Your task to perform on an android device: Search for hotels in Buenos aires Image 0: 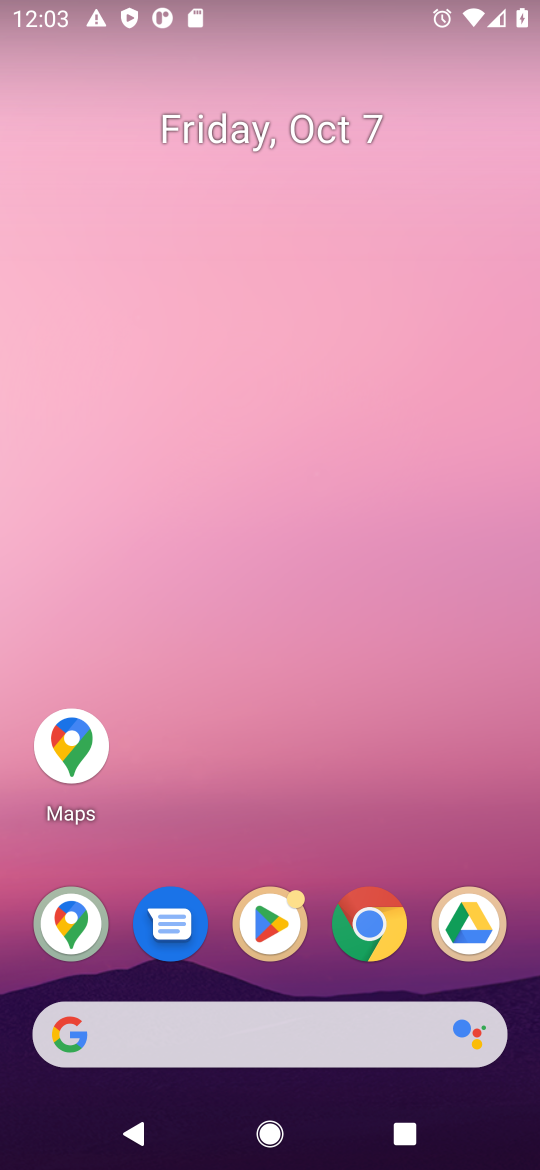
Step 0: click (69, 752)
Your task to perform on an android device: Search for hotels in Buenos aires Image 1: 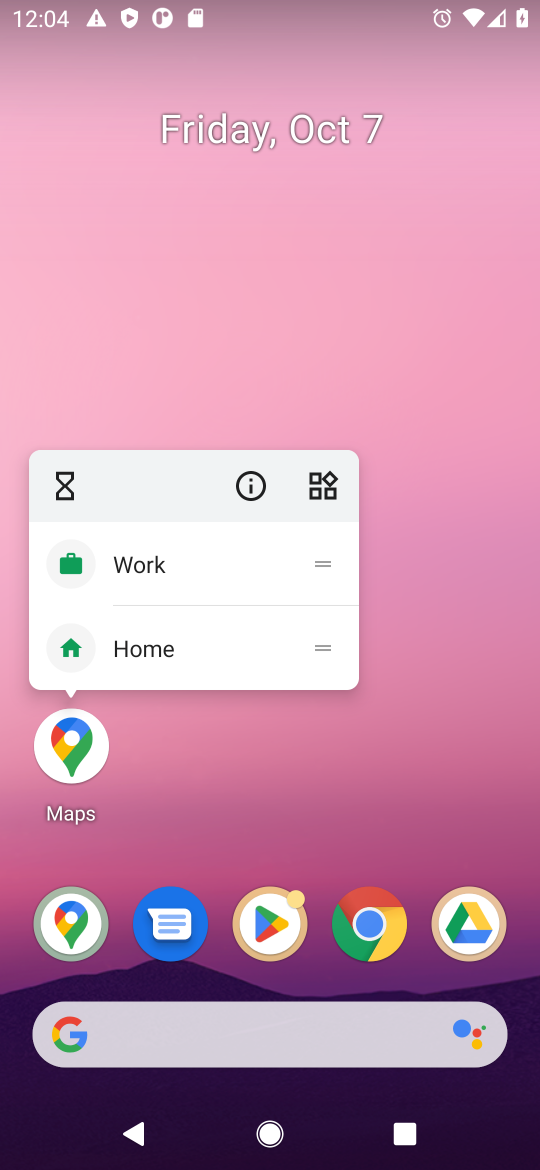
Step 1: click (75, 746)
Your task to perform on an android device: Search for hotels in Buenos aires Image 2: 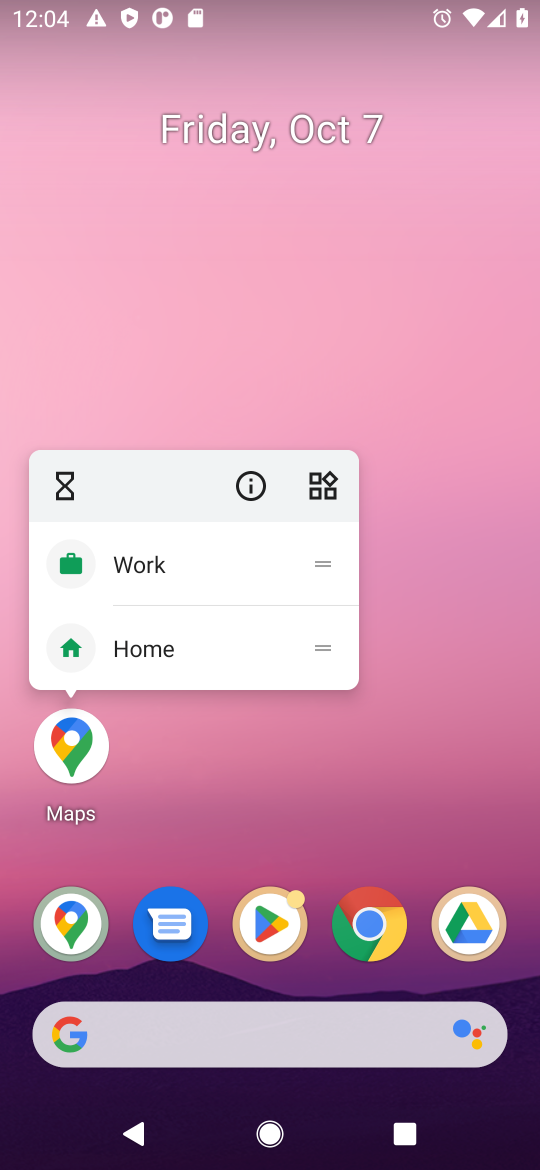
Step 2: click (75, 746)
Your task to perform on an android device: Search for hotels in Buenos aires Image 3: 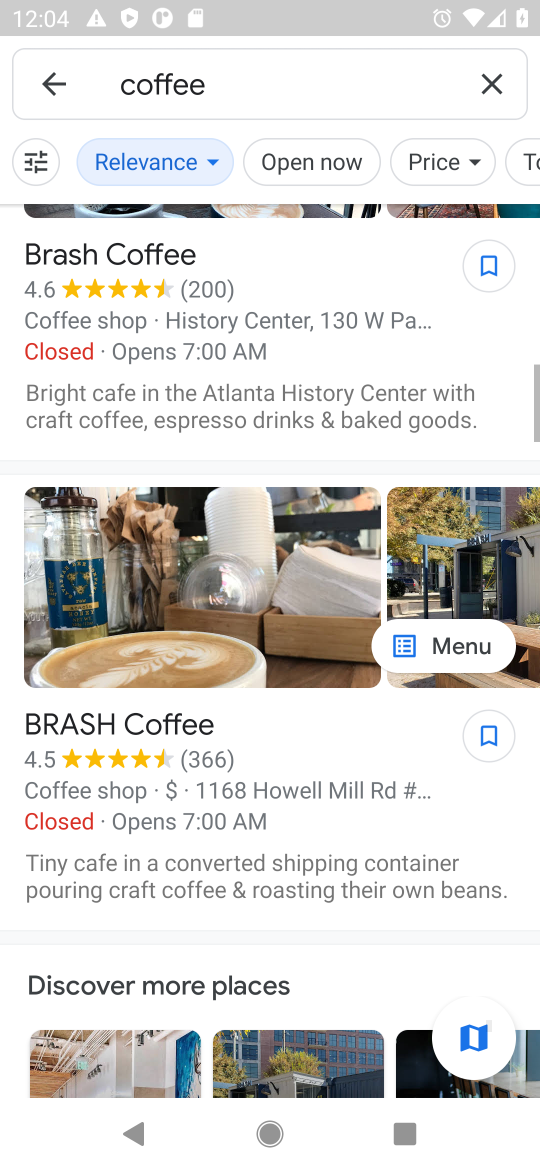
Step 3: click (491, 81)
Your task to perform on an android device: Search for hotels in Buenos aires Image 4: 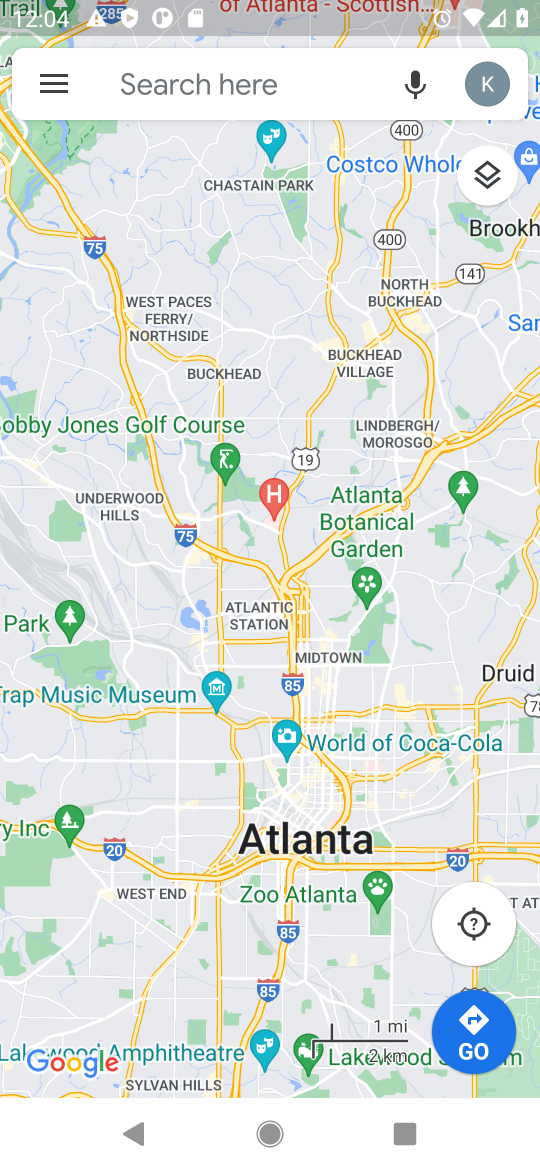
Step 4: click (187, 83)
Your task to perform on an android device: Search for hotels in Buenos aires Image 5: 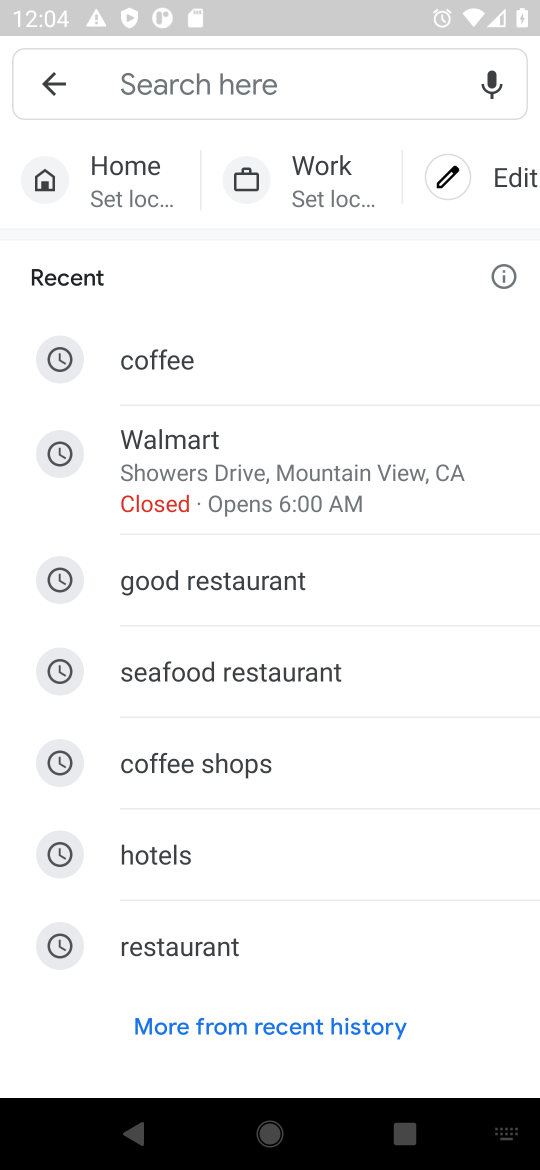
Step 5: type "hotels in Buenos aires"
Your task to perform on an android device: Search for hotels in Buenos aires Image 6: 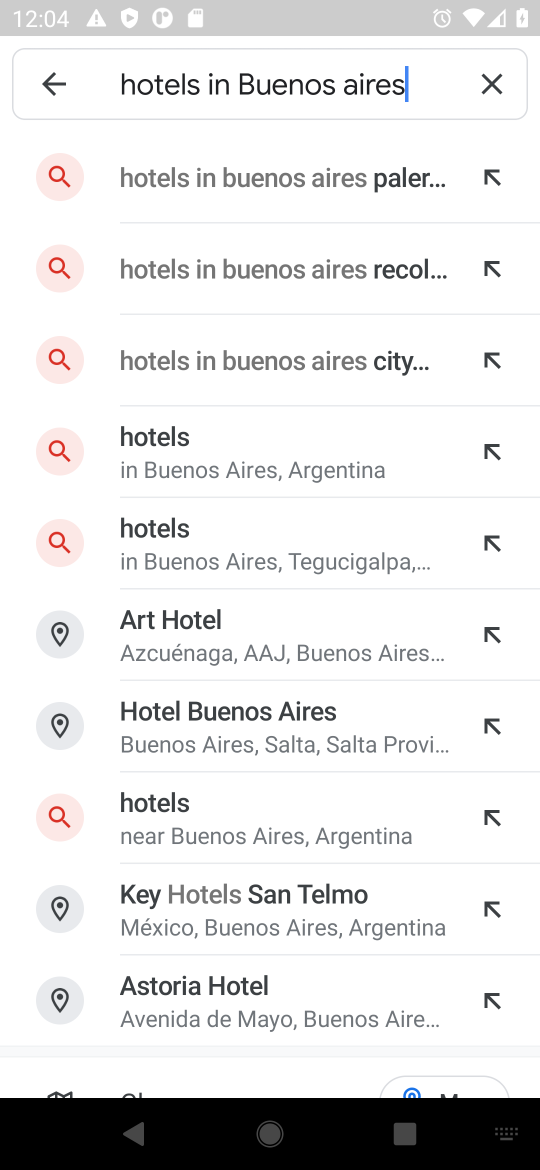
Step 6: click (314, 183)
Your task to perform on an android device: Search for hotels in Buenos aires Image 7: 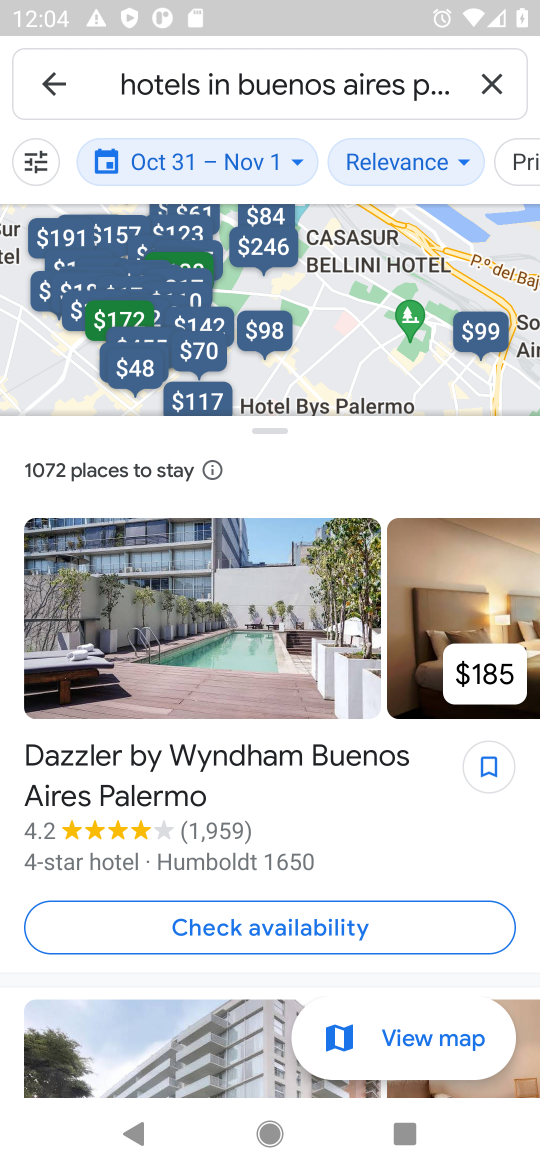
Step 7: task complete